Your task to perform on an android device: see tabs open on other devices in the chrome app Image 0: 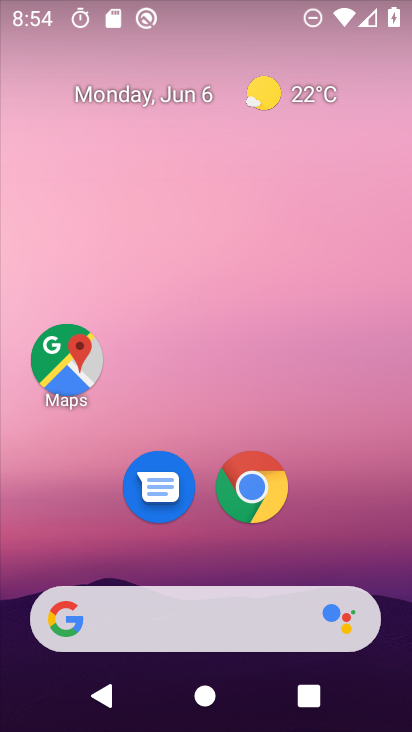
Step 0: drag from (401, 609) to (292, 93)
Your task to perform on an android device: see tabs open on other devices in the chrome app Image 1: 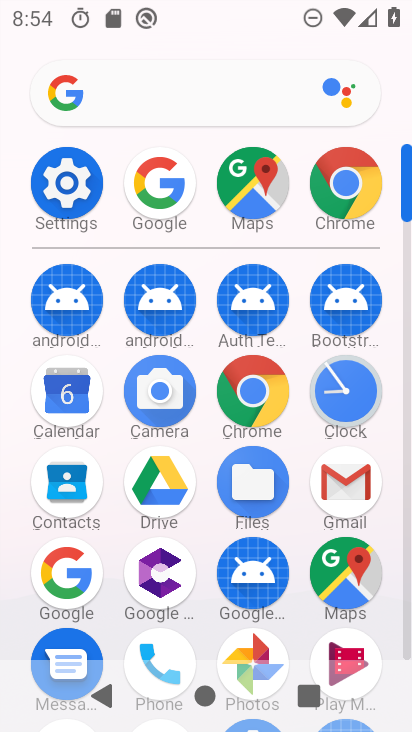
Step 1: click (270, 393)
Your task to perform on an android device: see tabs open on other devices in the chrome app Image 2: 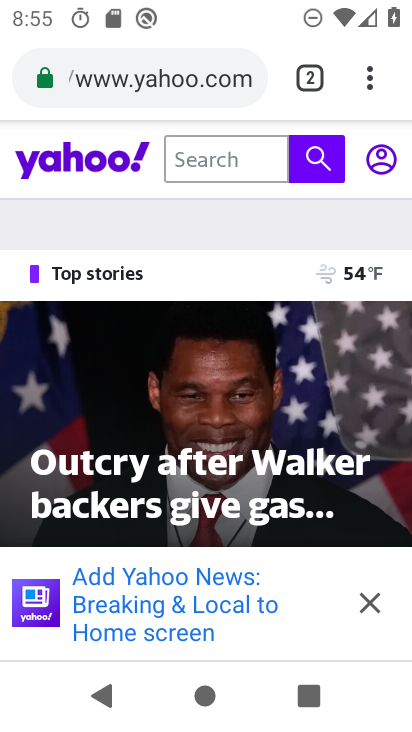
Step 2: press home button
Your task to perform on an android device: see tabs open on other devices in the chrome app Image 3: 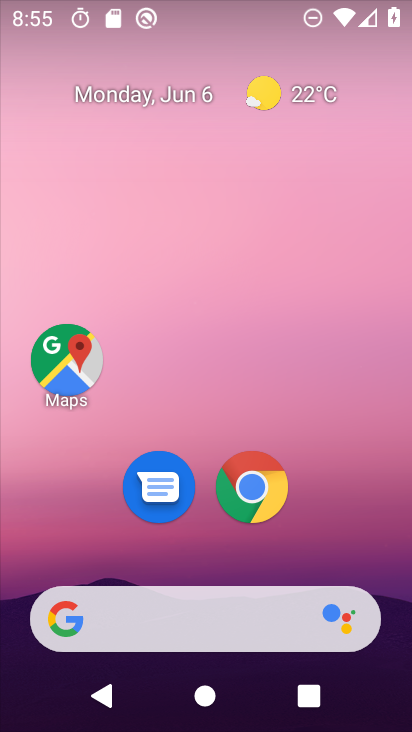
Step 3: drag from (391, 612) to (222, 8)
Your task to perform on an android device: see tabs open on other devices in the chrome app Image 4: 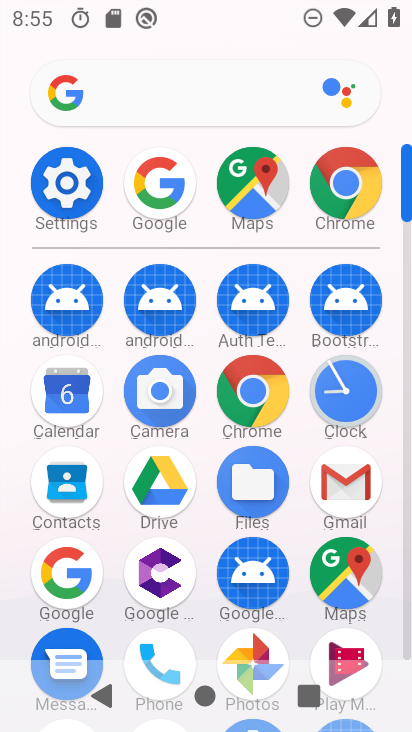
Step 4: click (251, 386)
Your task to perform on an android device: see tabs open on other devices in the chrome app Image 5: 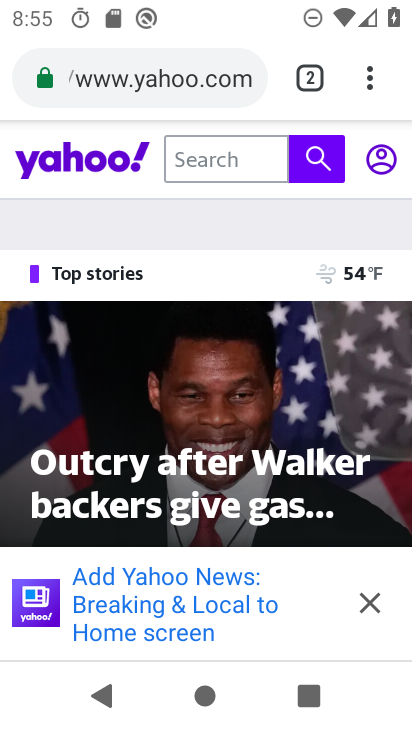
Step 5: press home button
Your task to perform on an android device: see tabs open on other devices in the chrome app Image 6: 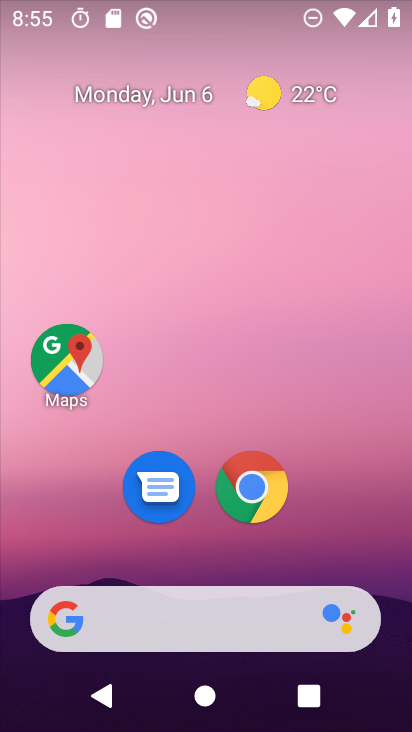
Step 6: drag from (397, 640) to (310, 14)
Your task to perform on an android device: see tabs open on other devices in the chrome app Image 7: 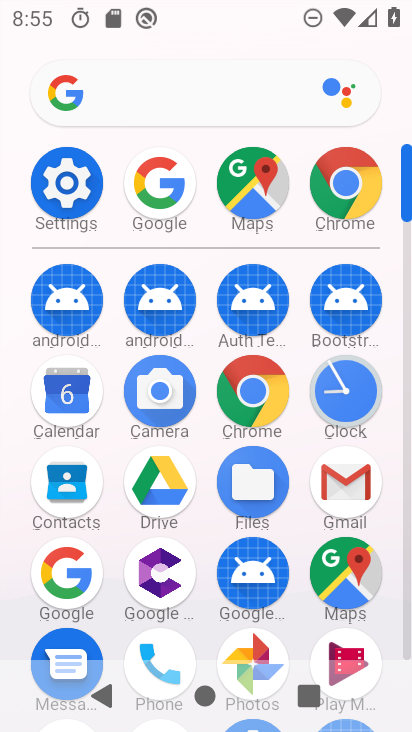
Step 7: click (350, 182)
Your task to perform on an android device: see tabs open on other devices in the chrome app Image 8: 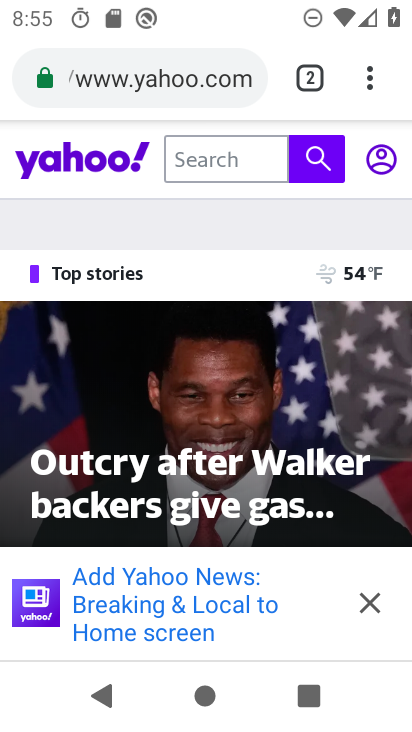
Step 8: press back button
Your task to perform on an android device: see tabs open on other devices in the chrome app Image 9: 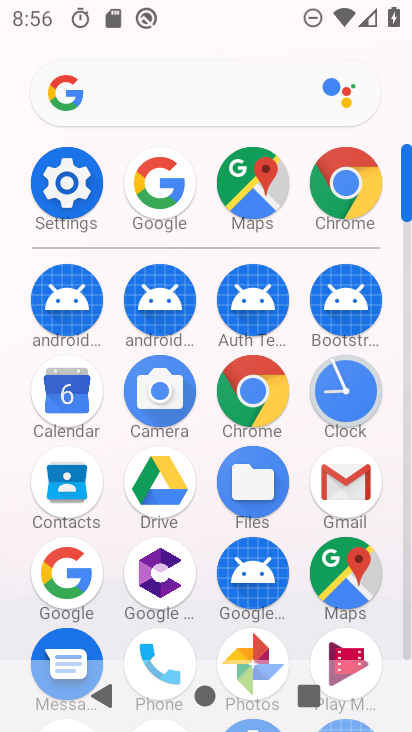
Step 9: click (344, 211)
Your task to perform on an android device: see tabs open on other devices in the chrome app Image 10: 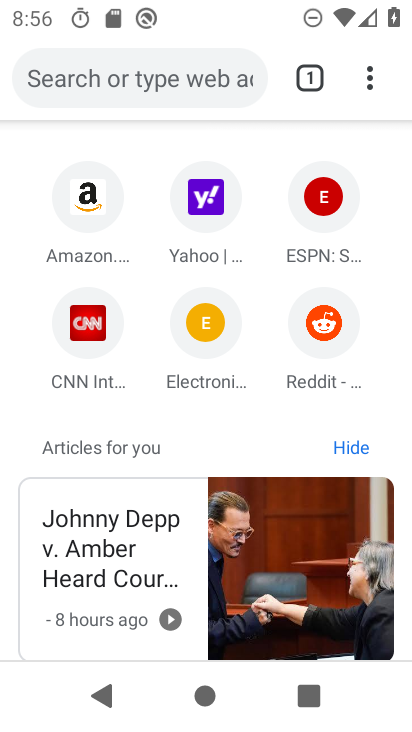
Step 10: task complete